Your task to perform on an android device: turn off airplane mode Image 0: 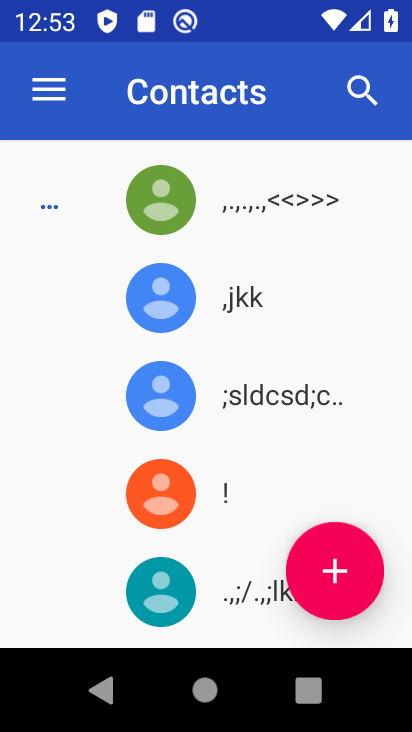
Step 0: press home button
Your task to perform on an android device: turn off airplane mode Image 1: 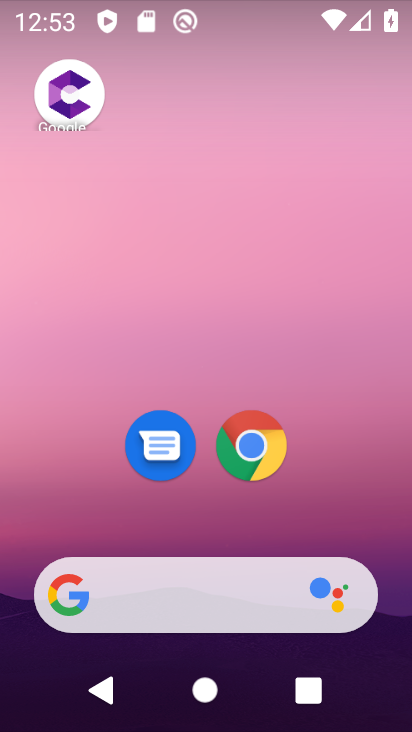
Step 1: drag from (194, 520) to (195, 0)
Your task to perform on an android device: turn off airplane mode Image 2: 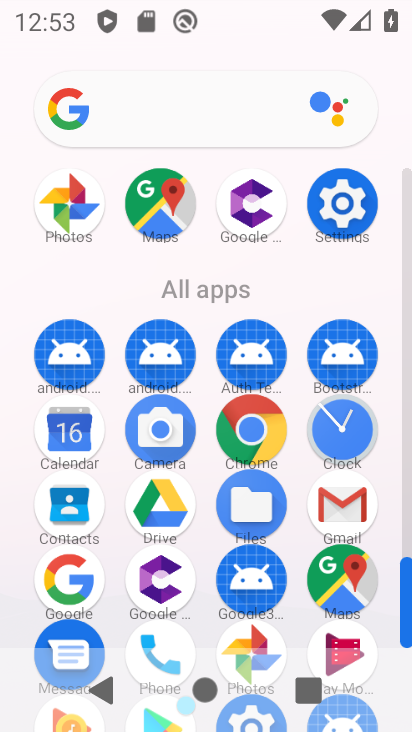
Step 2: click (335, 207)
Your task to perform on an android device: turn off airplane mode Image 3: 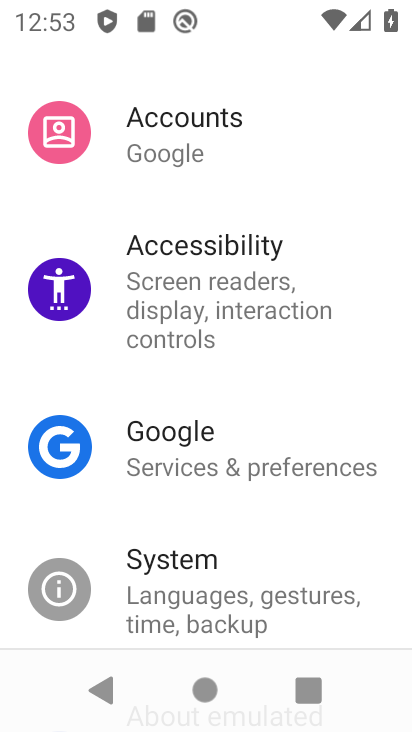
Step 3: drag from (304, 152) to (262, 644)
Your task to perform on an android device: turn off airplane mode Image 4: 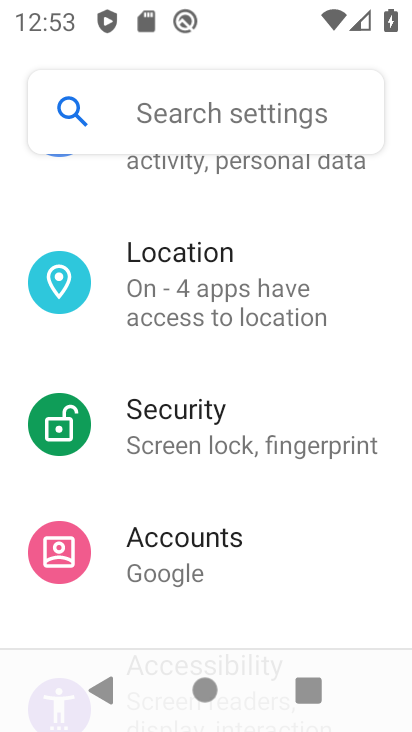
Step 4: drag from (303, 184) to (241, 654)
Your task to perform on an android device: turn off airplane mode Image 5: 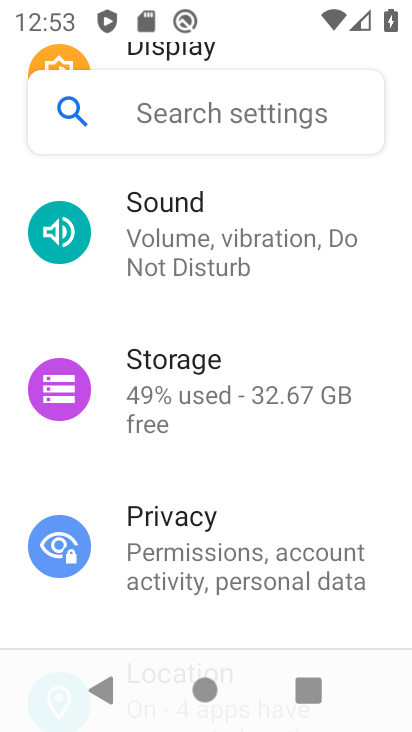
Step 5: drag from (264, 85) to (238, 622)
Your task to perform on an android device: turn off airplane mode Image 6: 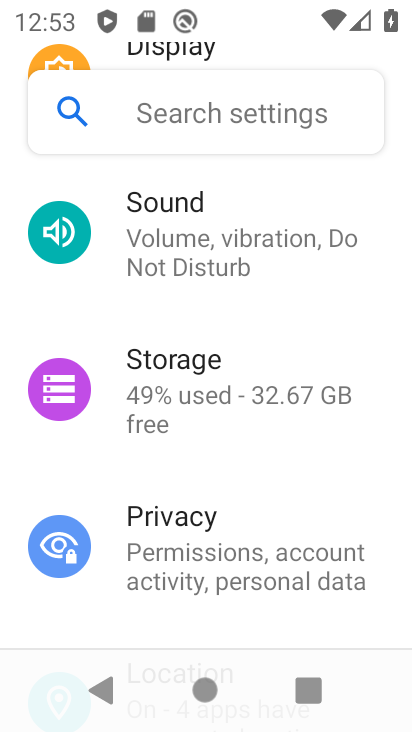
Step 6: drag from (234, 301) to (223, 719)
Your task to perform on an android device: turn off airplane mode Image 7: 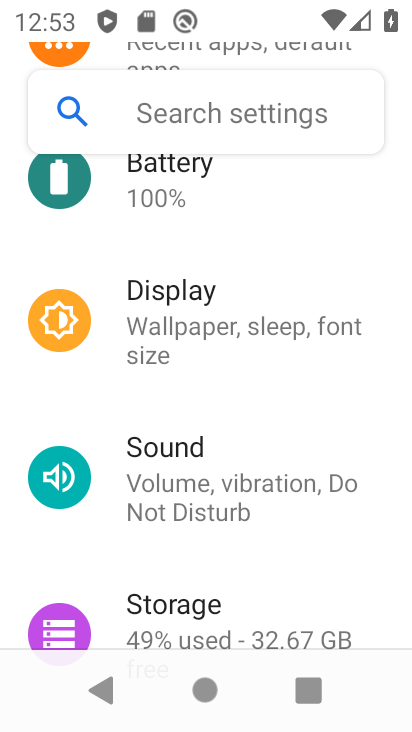
Step 7: drag from (257, 236) to (206, 622)
Your task to perform on an android device: turn off airplane mode Image 8: 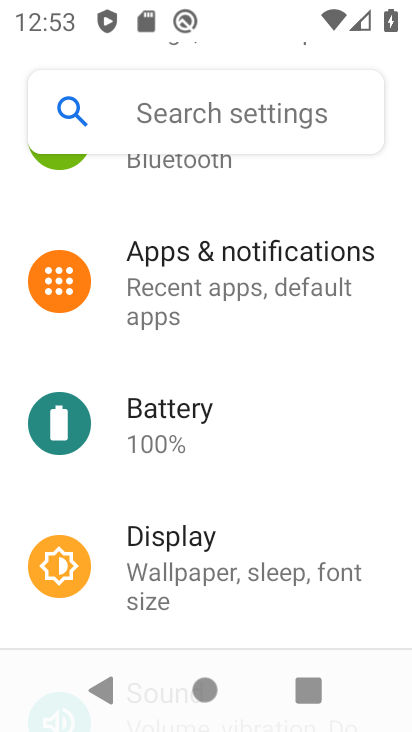
Step 8: drag from (295, 241) to (279, 581)
Your task to perform on an android device: turn off airplane mode Image 9: 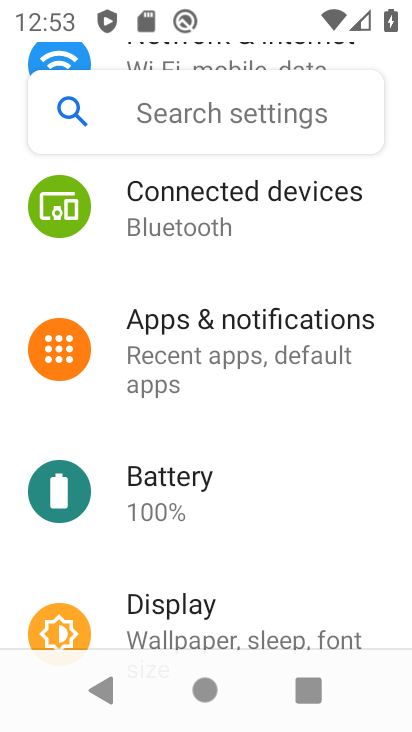
Step 9: drag from (242, 299) to (203, 638)
Your task to perform on an android device: turn off airplane mode Image 10: 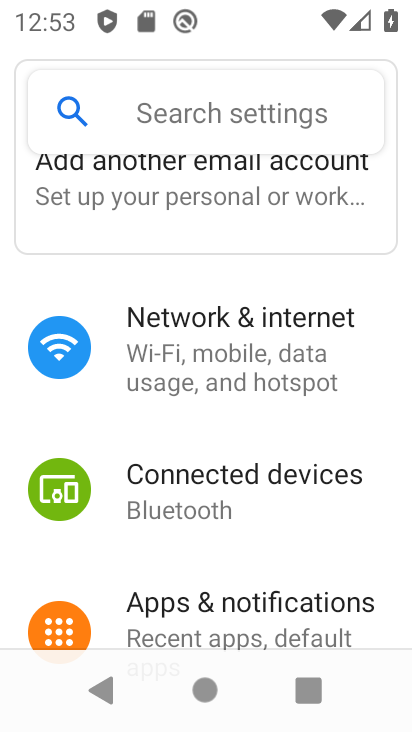
Step 10: click (198, 374)
Your task to perform on an android device: turn off airplane mode Image 11: 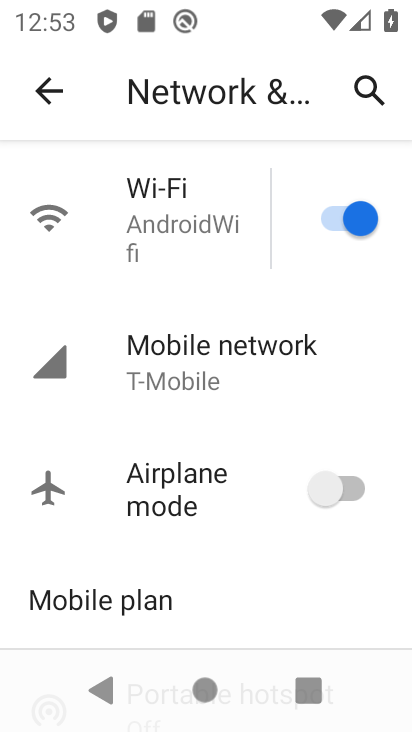
Step 11: click (346, 494)
Your task to perform on an android device: turn off airplane mode Image 12: 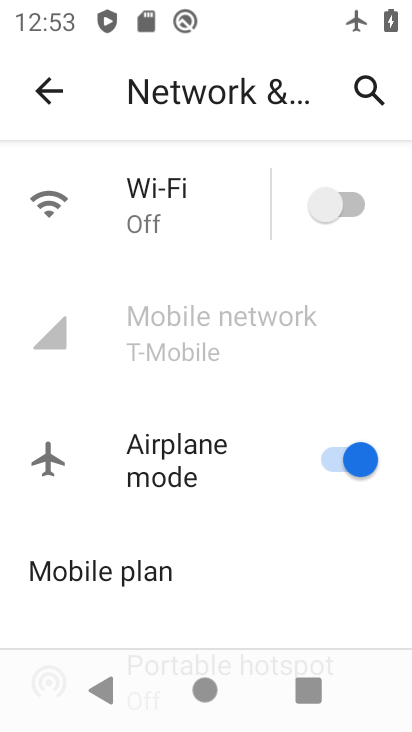
Step 12: task complete